Your task to perform on an android device: toggle priority inbox in the gmail app Image 0: 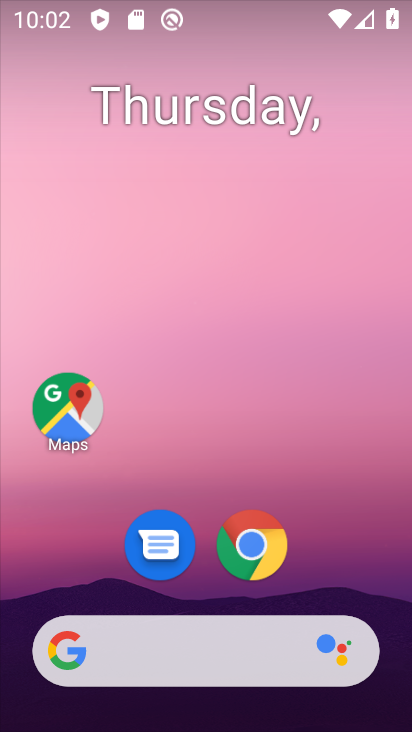
Step 0: drag from (354, 572) to (170, 136)
Your task to perform on an android device: toggle priority inbox in the gmail app Image 1: 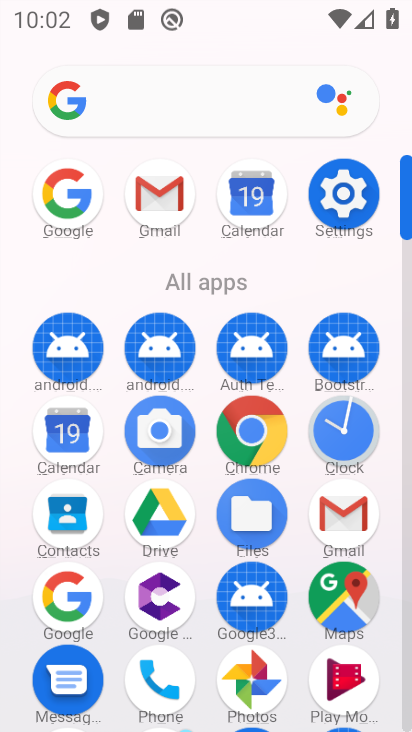
Step 1: click (160, 188)
Your task to perform on an android device: toggle priority inbox in the gmail app Image 2: 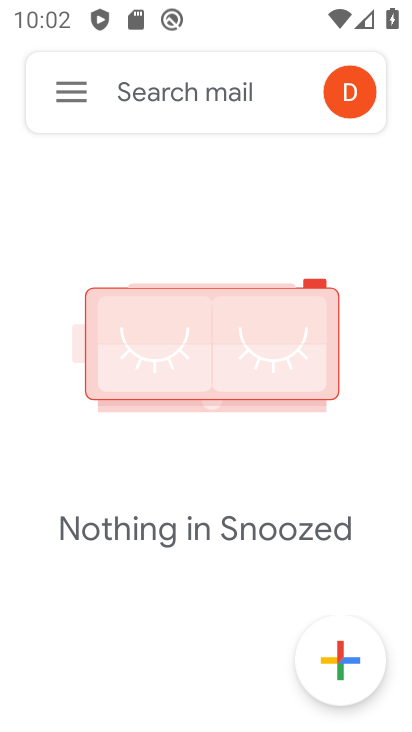
Step 2: click (66, 88)
Your task to perform on an android device: toggle priority inbox in the gmail app Image 3: 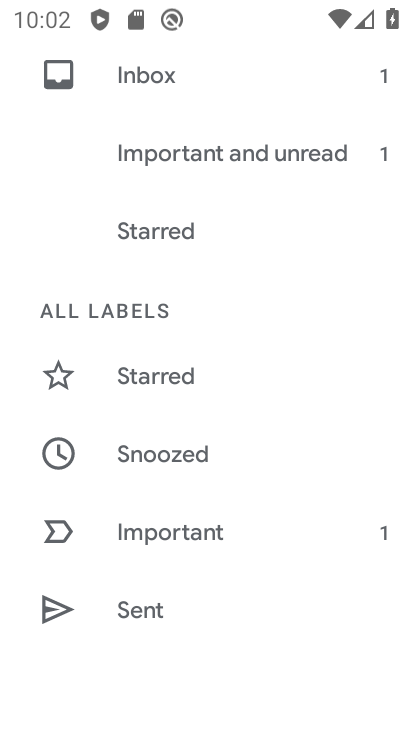
Step 3: drag from (135, 475) to (190, 373)
Your task to perform on an android device: toggle priority inbox in the gmail app Image 4: 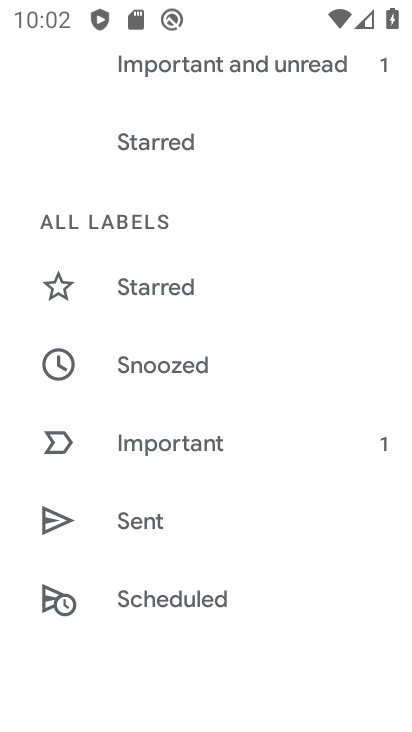
Step 4: drag from (167, 550) to (197, 404)
Your task to perform on an android device: toggle priority inbox in the gmail app Image 5: 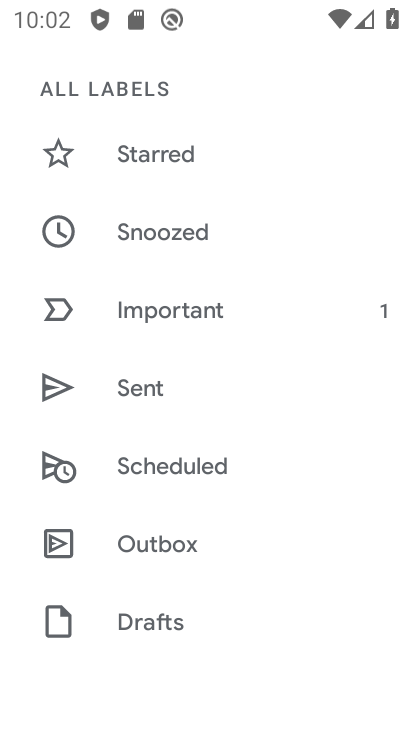
Step 5: drag from (144, 590) to (176, 479)
Your task to perform on an android device: toggle priority inbox in the gmail app Image 6: 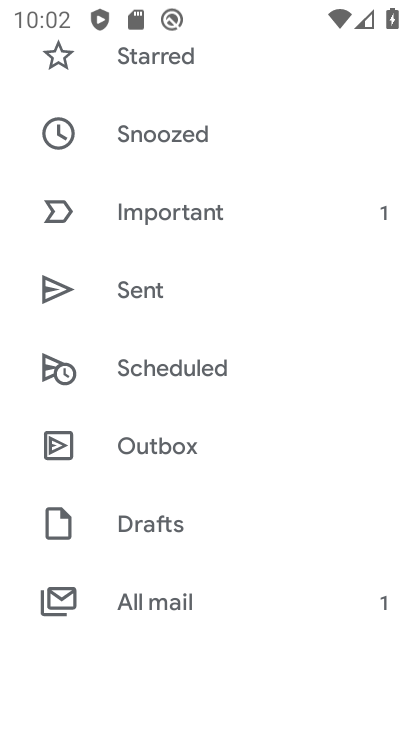
Step 6: drag from (138, 671) to (199, 542)
Your task to perform on an android device: toggle priority inbox in the gmail app Image 7: 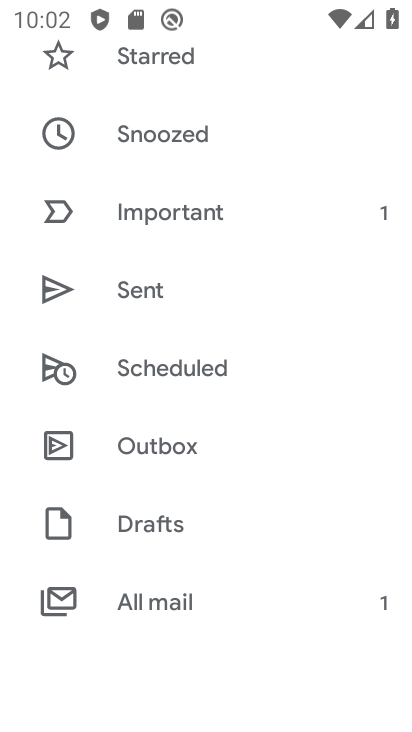
Step 7: drag from (143, 643) to (214, 474)
Your task to perform on an android device: toggle priority inbox in the gmail app Image 8: 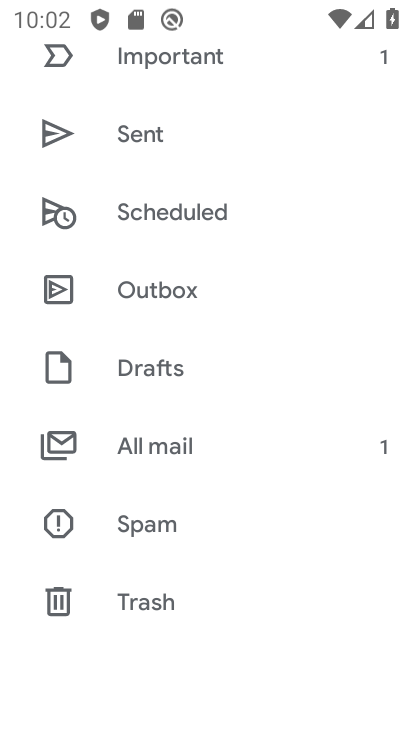
Step 8: drag from (165, 571) to (212, 455)
Your task to perform on an android device: toggle priority inbox in the gmail app Image 9: 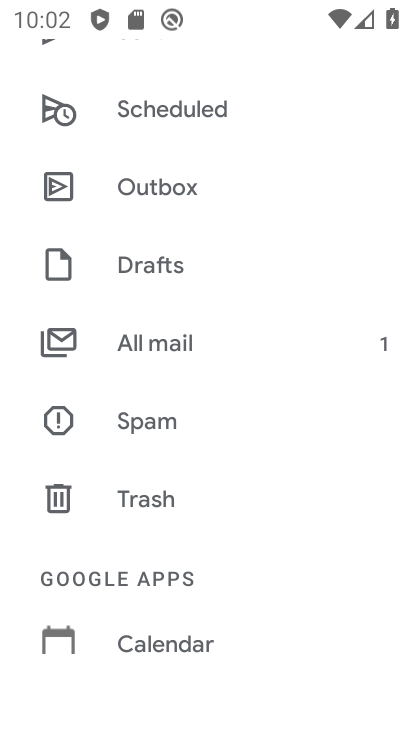
Step 9: drag from (110, 553) to (218, 414)
Your task to perform on an android device: toggle priority inbox in the gmail app Image 10: 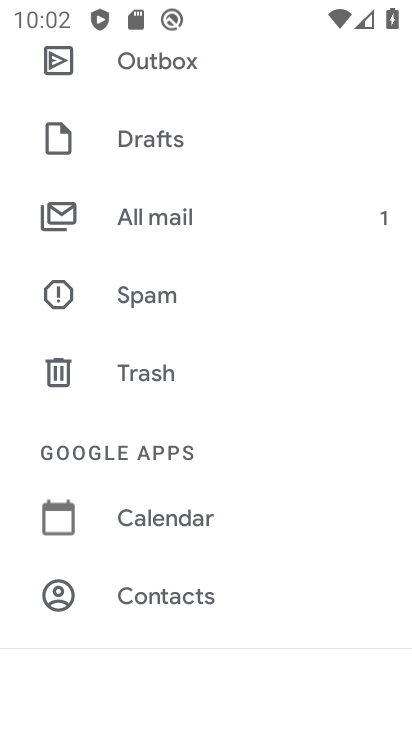
Step 10: drag from (137, 564) to (188, 411)
Your task to perform on an android device: toggle priority inbox in the gmail app Image 11: 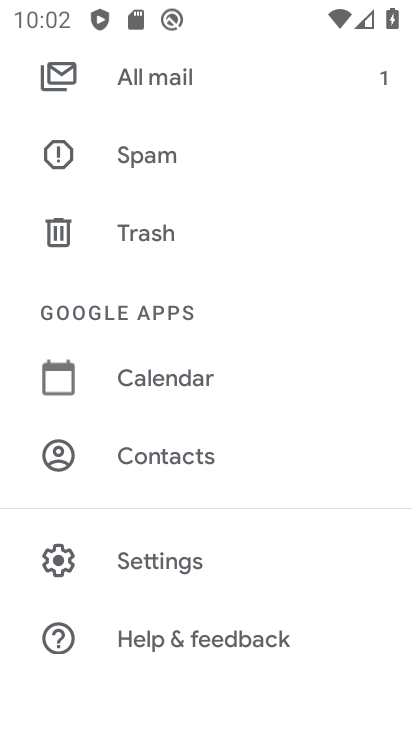
Step 11: click (160, 566)
Your task to perform on an android device: toggle priority inbox in the gmail app Image 12: 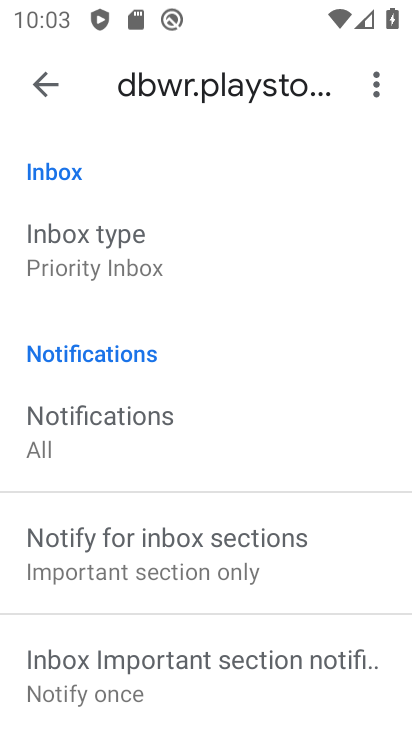
Step 12: click (151, 272)
Your task to perform on an android device: toggle priority inbox in the gmail app Image 13: 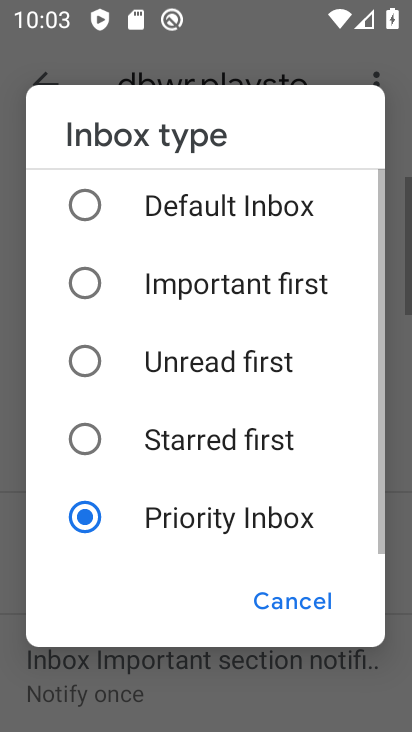
Step 13: click (85, 209)
Your task to perform on an android device: toggle priority inbox in the gmail app Image 14: 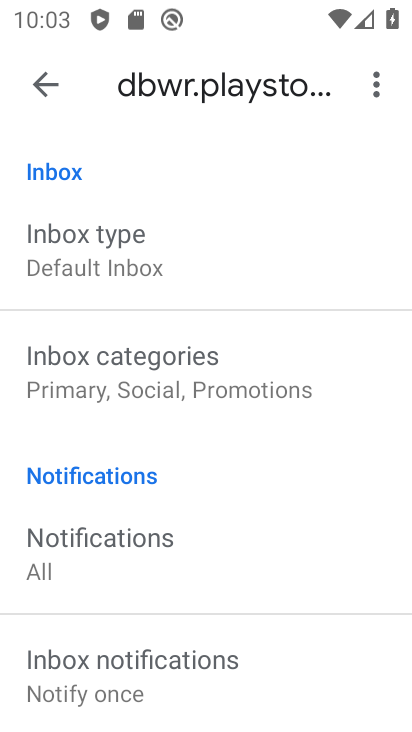
Step 14: task complete